Your task to perform on an android device: Open Google Image 0: 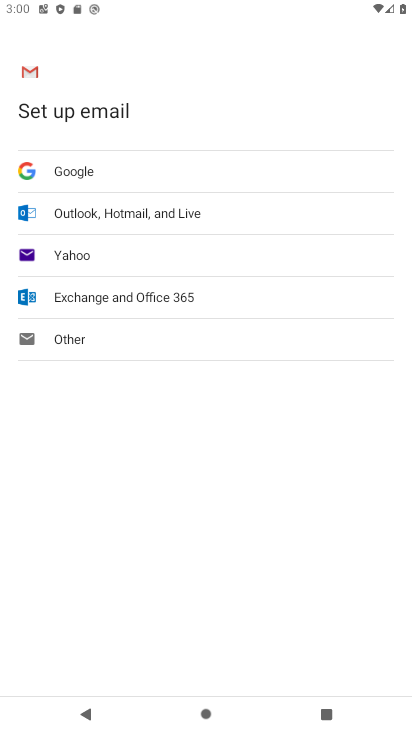
Step 0: press back button
Your task to perform on an android device: Open Google Image 1: 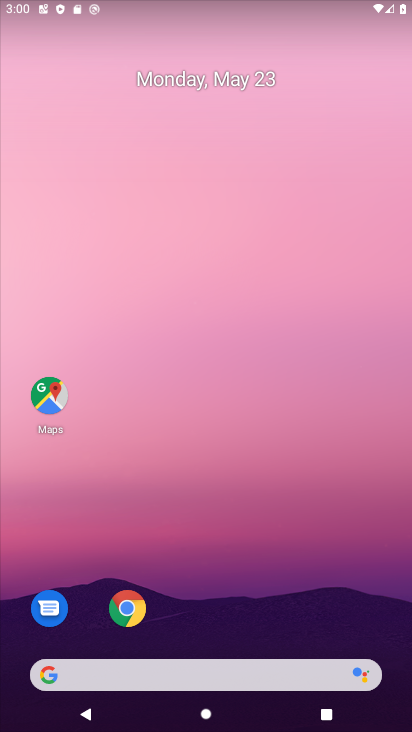
Step 1: drag from (224, 600) to (200, 187)
Your task to perform on an android device: Open Google Image 2: 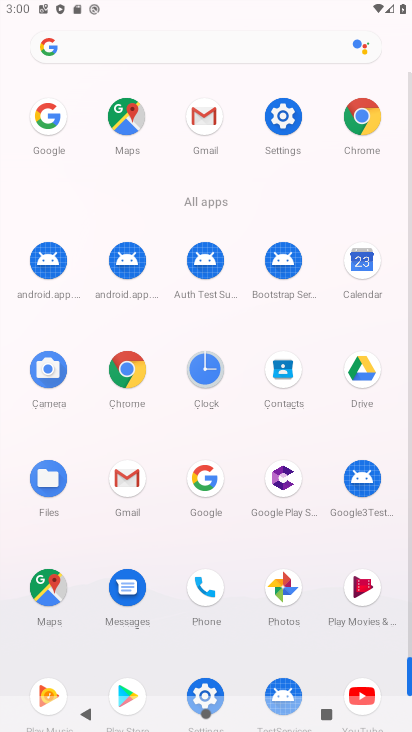
Step 2: click (46, 116)
Your task to perform on an android device: Open Google Image 3: 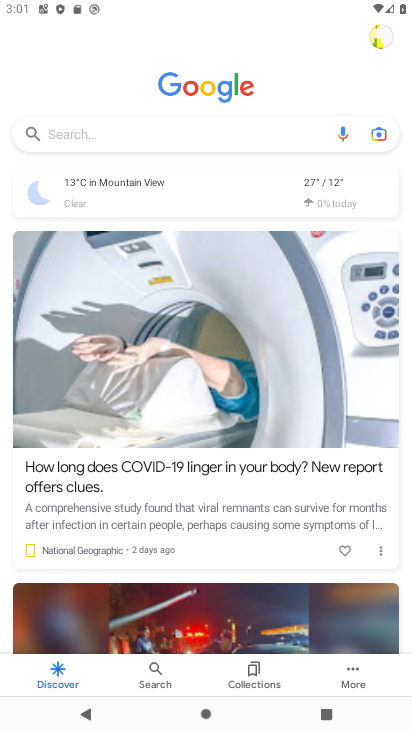
Step 3: task complete